Your task to perform on an android device: read, delete, or share a saved page in the chrome app Image 0: 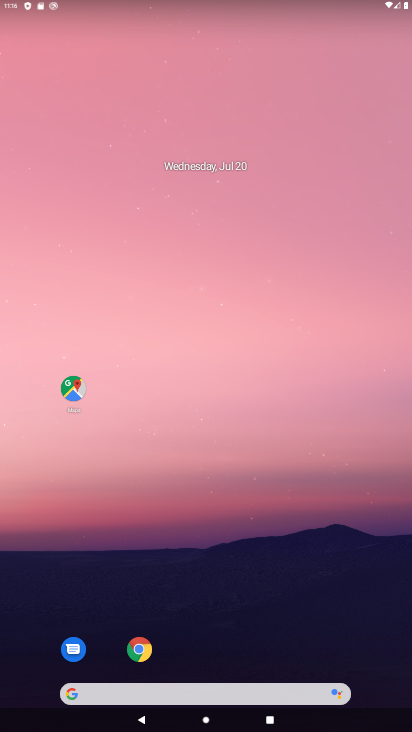
Step 0: click (138, 651)
Your task to perform on an android device: read, delete, or share a saved page in the chrome app Image 1: 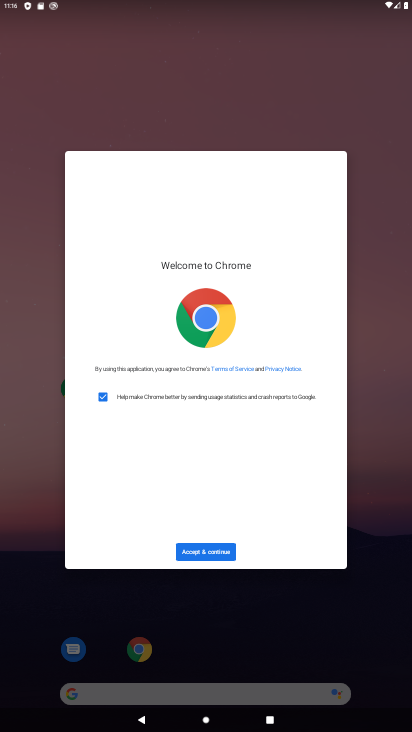
Step 1: click (187, 554)
Your task to perform on an android device: read, delete, or share a saved page in the chrome app Image 2: 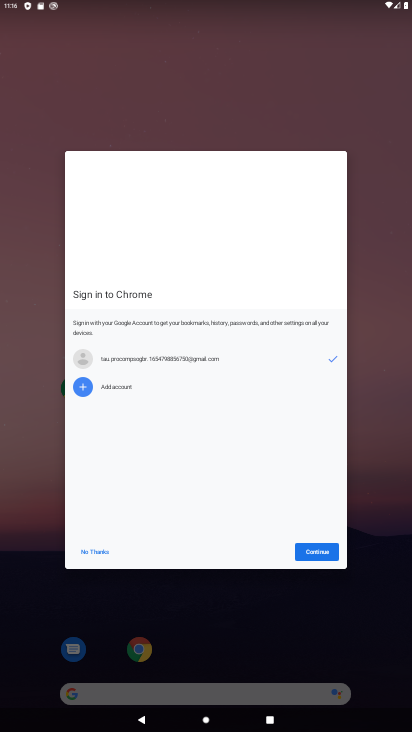
Step 2: click (303, 552)
Your task to perform on an android device: read, delete, or share a saved page in the chrome app Image 3: 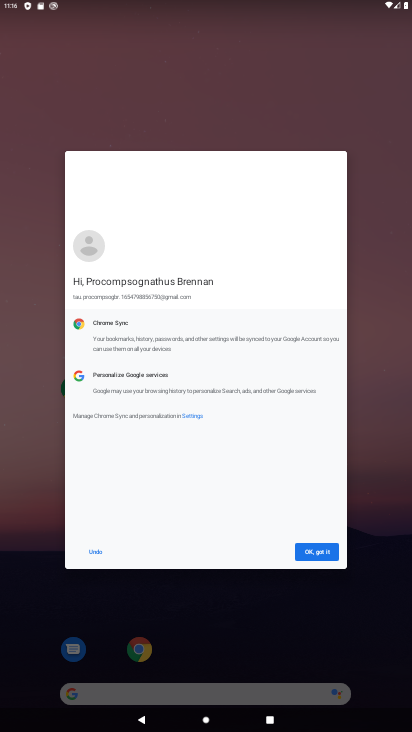
Step 3: click (304, 552)
Your task to perform on an android device: read, delete, or share a saved page in the chrome app Image 4: 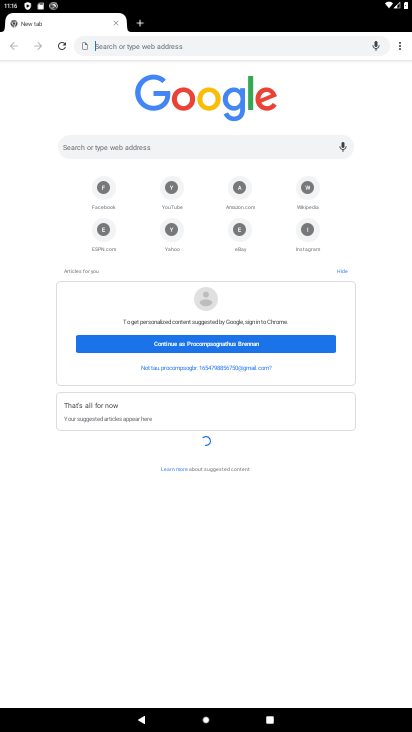
Step 4: click (394, 42)
Your task to perform on an android device: read, delete, or share a saved page in the chrome app Image 5: 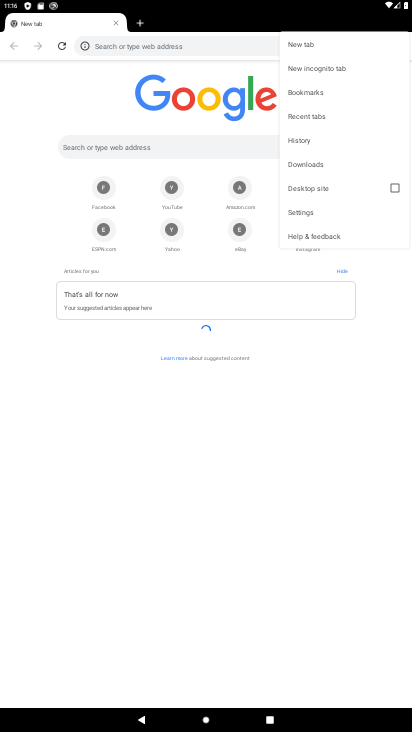
Step 5: click (335, 158)
Your task to perform on an android device: read, delete, or share a saved page in the chrome app Image 6: 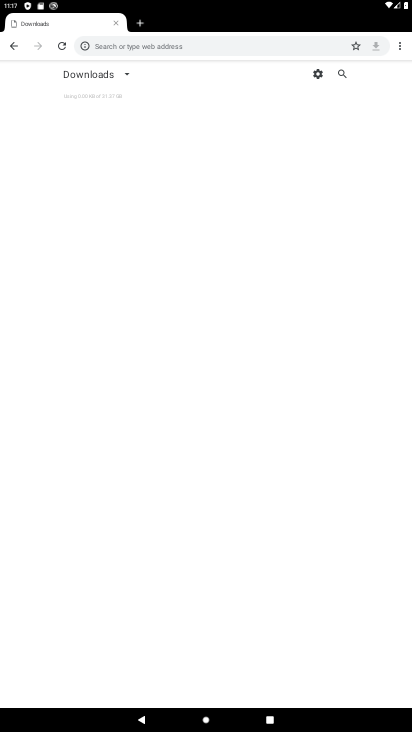
Step 6: task complete